Your task to perform on an android device: When is my next meeting? Image 0: 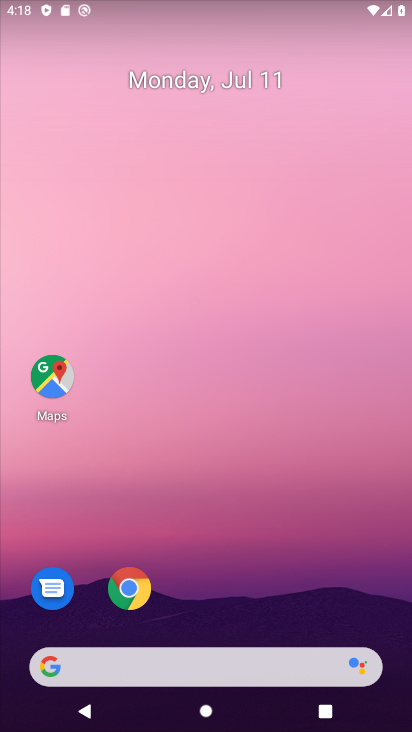
Step 0: drag from (105, 634) to (27, 555)
Your task to perform on an android device: When is my next meeting? Image 1: 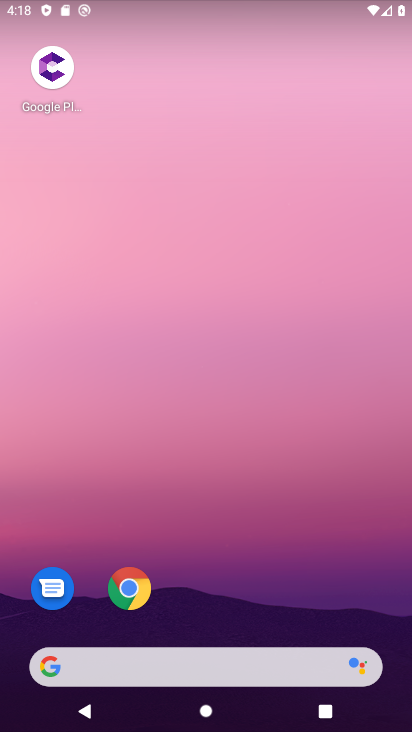
Step 1: drag from (88, 640) to (327, 107)
Your task to perform on an android device: When is my next meeting? Image 2: 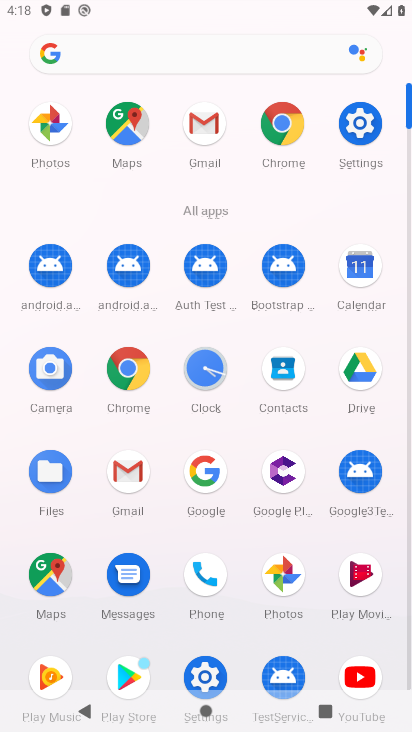
Step 2: click (363, 265)
Your task to perform on an android device: When is my next meeting? Image 3: 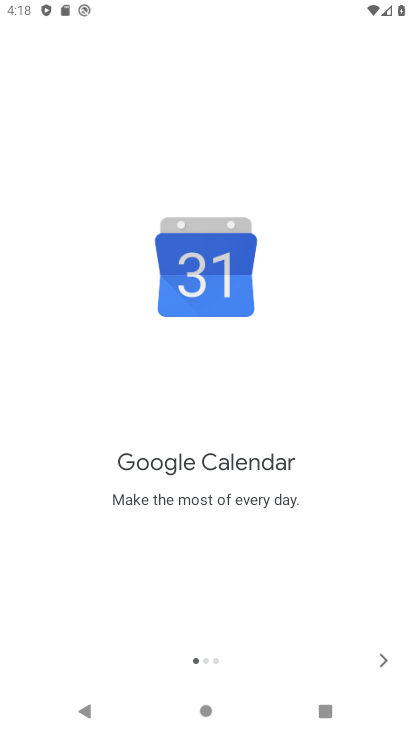
Step 3: click (381, 661)
Your task to perform on an android device: When is my next meeting? Image 4: 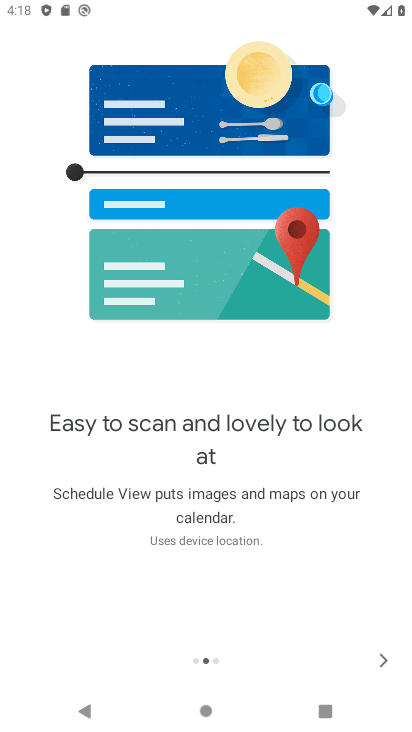
Step 4: click (383, 659)
Your task to perform on an android device: When is my next meeting? Image 5: 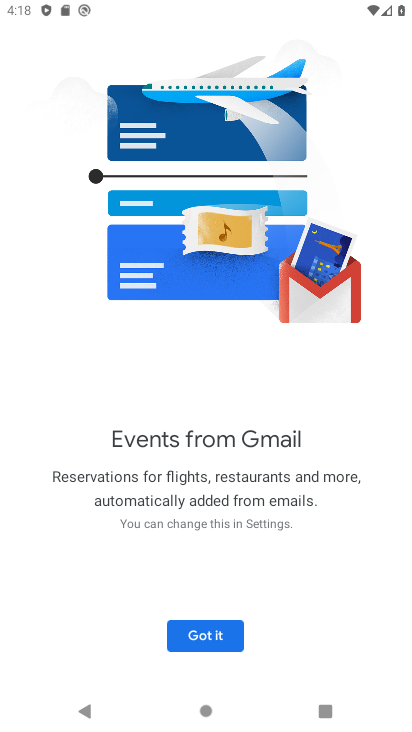
Step 5: click (196, 637)
Your task to perform on an android device: When is my next meeting? Image 6: 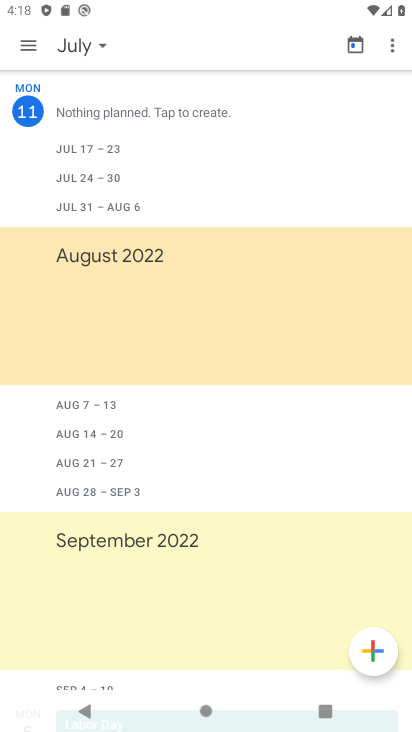
Step 6: click (26, 45)
Your task to perform on an android device: When is my next meeting? Image 7: 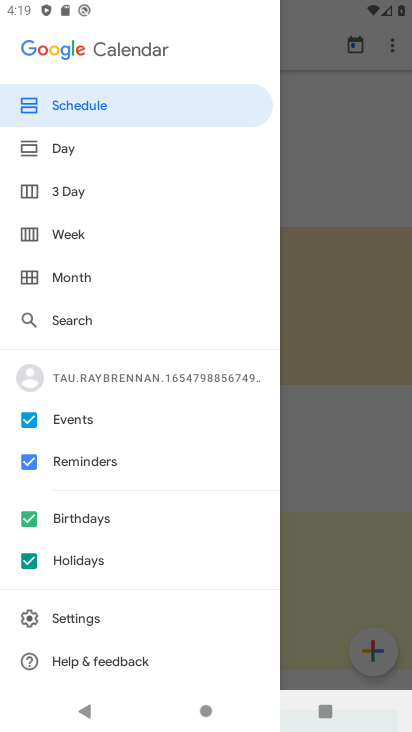
Step 7: click (337, 508)
Your task to perform on an android device: When is my next meeting? Image 8: 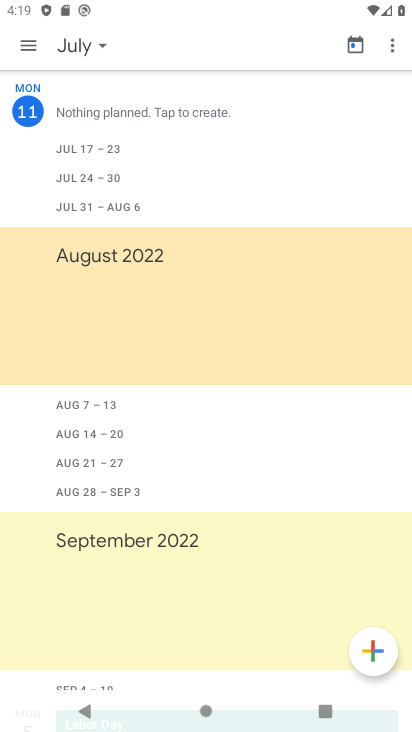
Step 8: task complete